Your task to perform on an android device: Open the Play Movies app and select the watchlist tab. Image 0: 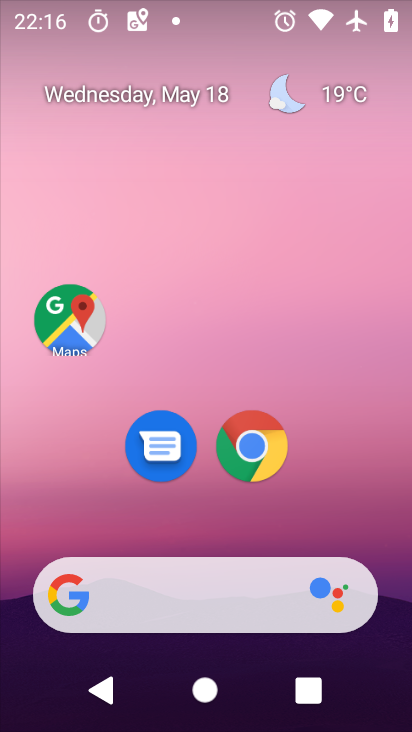
Step 0: press home button
Your task to perform on an android device: Open the Play Movies app and select the watchlist tab. Image 1: 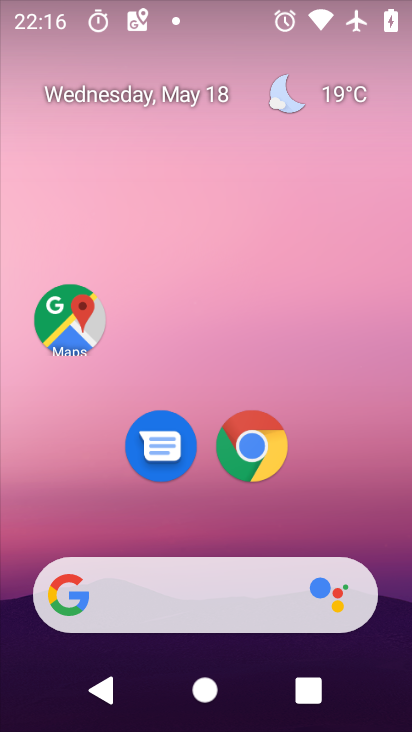
Step 1: drag from (159, 557) to (301, 67)
Your task to perform on an android device: Open the Play Movies app and select the watchlist tab. Image 2: 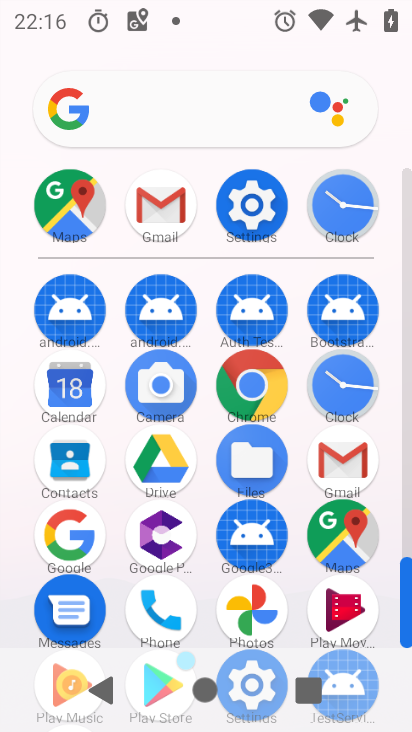
Step 2: click (344, 605)
Your task to perform on an android device: Open the Play Movies app and select the watchlist tab. Image 3: 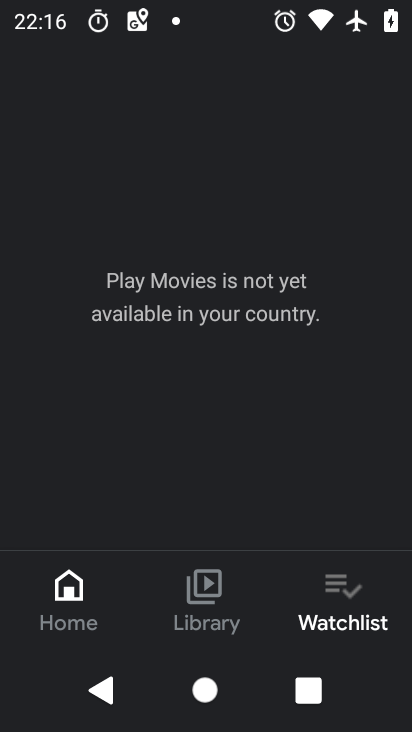
Step 3: click (357, 618)
Your task to perform on an android device: Open the Play Movies app and select the watchlist tab. Image 4: 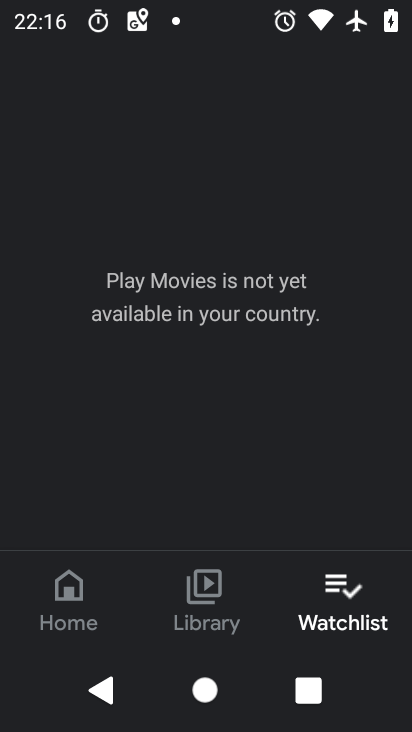
Step 4: task complete